Your task to perform on an android device: turn on showing notifications on the lock screen Image 0: 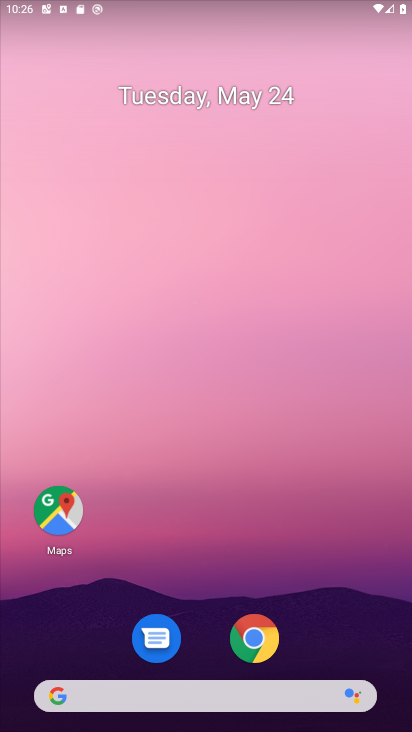
Step 0: drag from (266, 731) to (266, 3)
Your task to perform on an android device: turn on showing notifications on the lock screen Image 1: 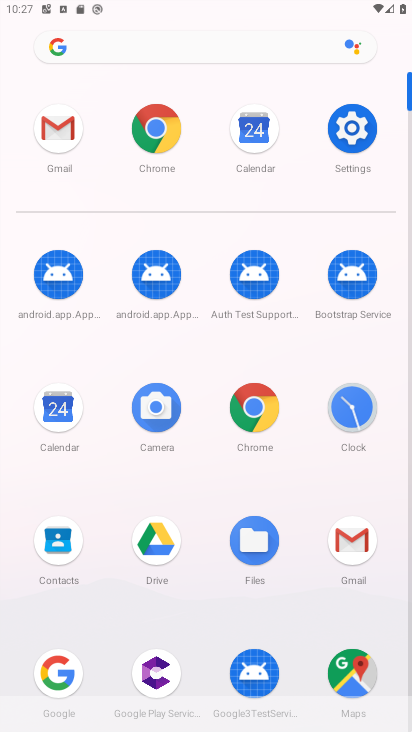
Step 1: click (356, 127)
Your task to perform on an android device: turn on showing notifications on the lock screen Image 2: 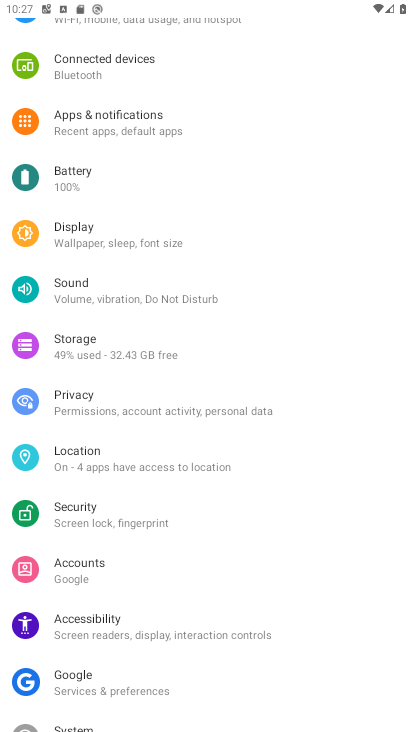
Step 2: click (190, 119)
Your task to perform on an android device: turn on showing notifications on the lock screen Image 3: 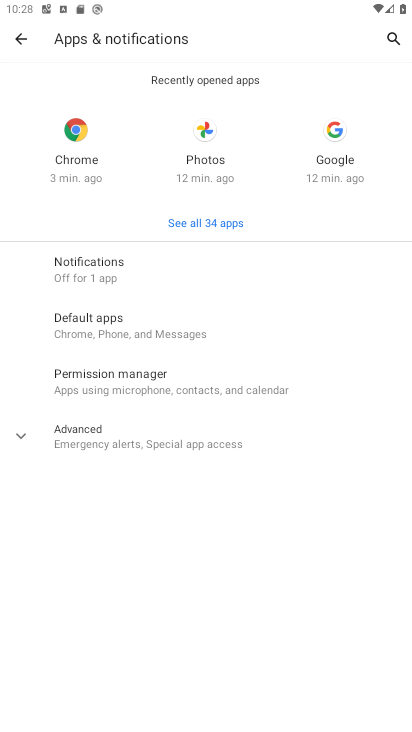
Step 3: click (154, 270)
Your task to perform on an android device: turn on showing notifications on the lock screen Image 4: 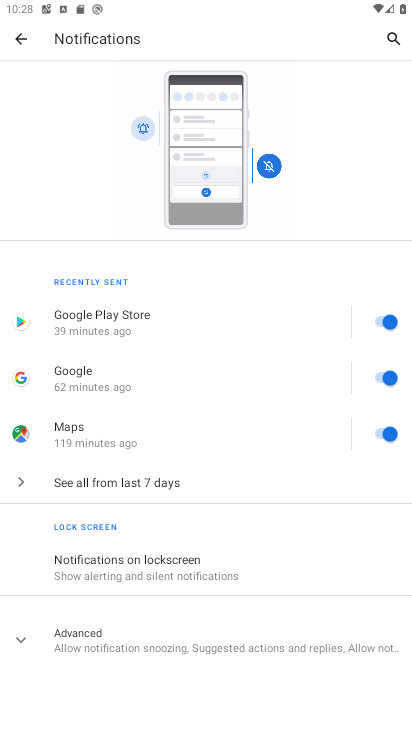
Step 4: click (179, 564)
Your task to perform on an android device: turn on showing notifications on the lock screen Image 5: 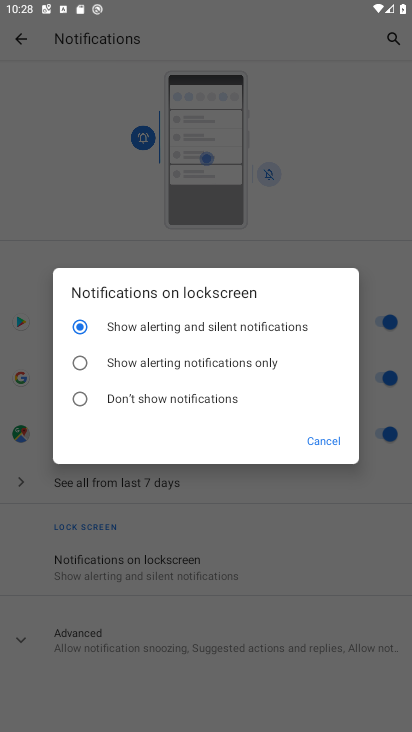
Step 5: task complete